Your task to perform on an android device: Search for corsair k70 on target, select the first entry, add it to the cart, then select checkout. Image 0: 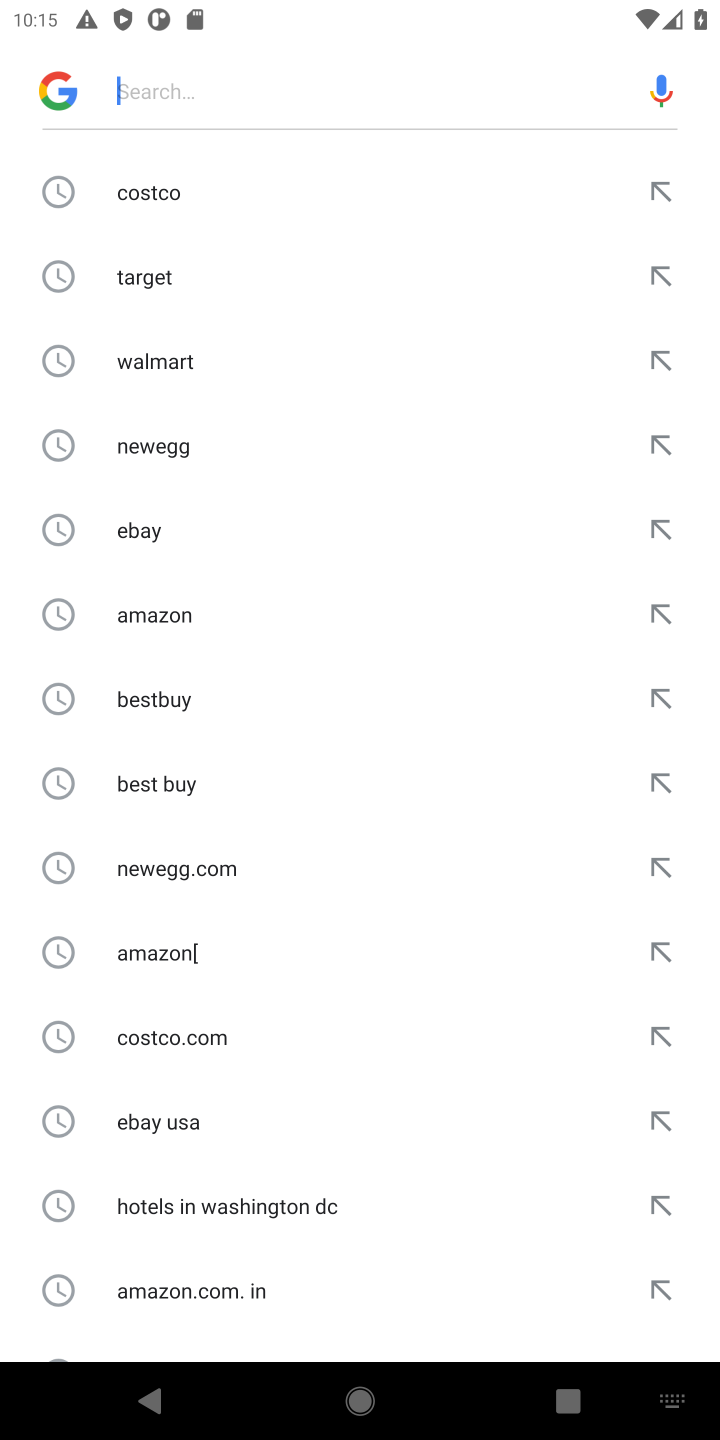
Step 0: press home button
Your task to perform on an android device: Search for corsair k70 on target, select the first entry, add it to the cart, then select checkout. Image 1: 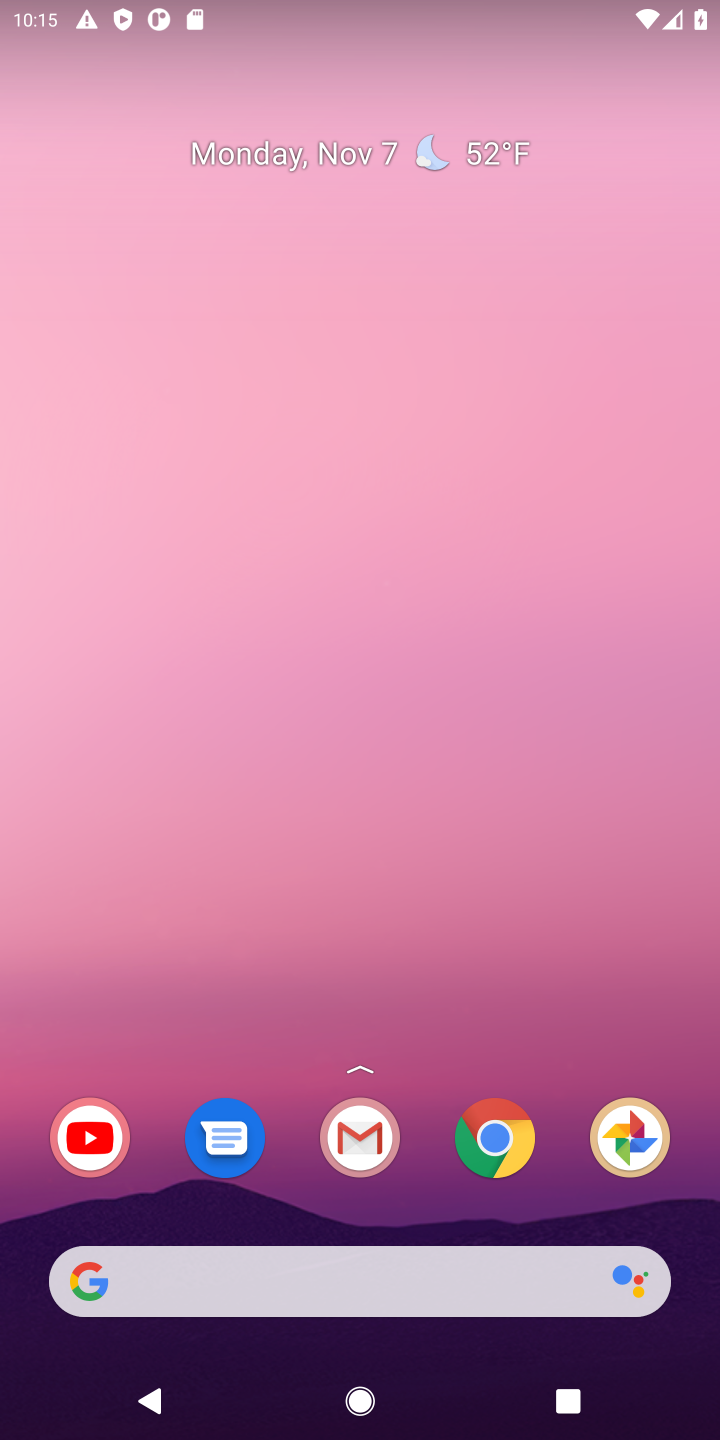
Step 1: click (512, 1140)
Your task to perform on an android device: Search for corsair k70 on target, select the first entry, add it to the cart, then select checkout. Image 2: 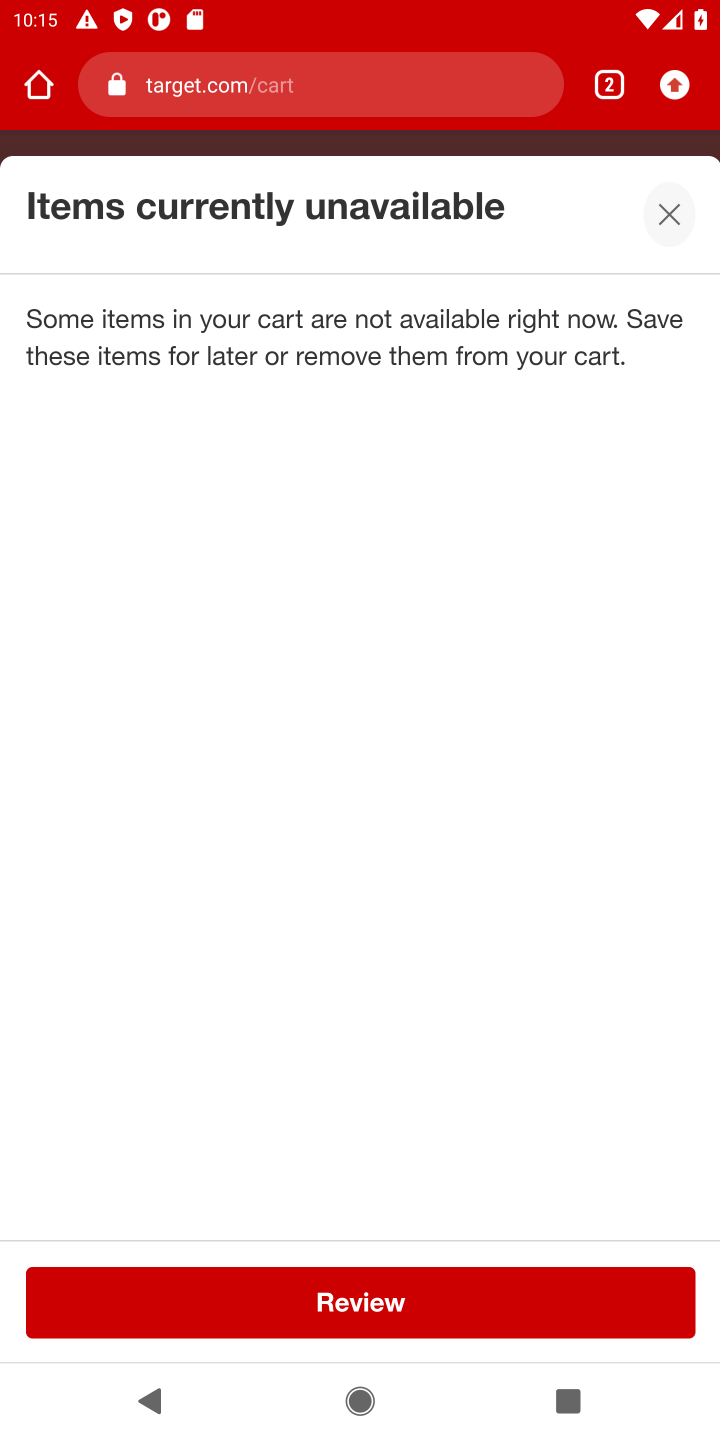
Step 2: click (226, 79)
Your task to perform on an android device: Search for corsair k70 on target, select the first entry, add it to the cart, then select checkout. Image 3: 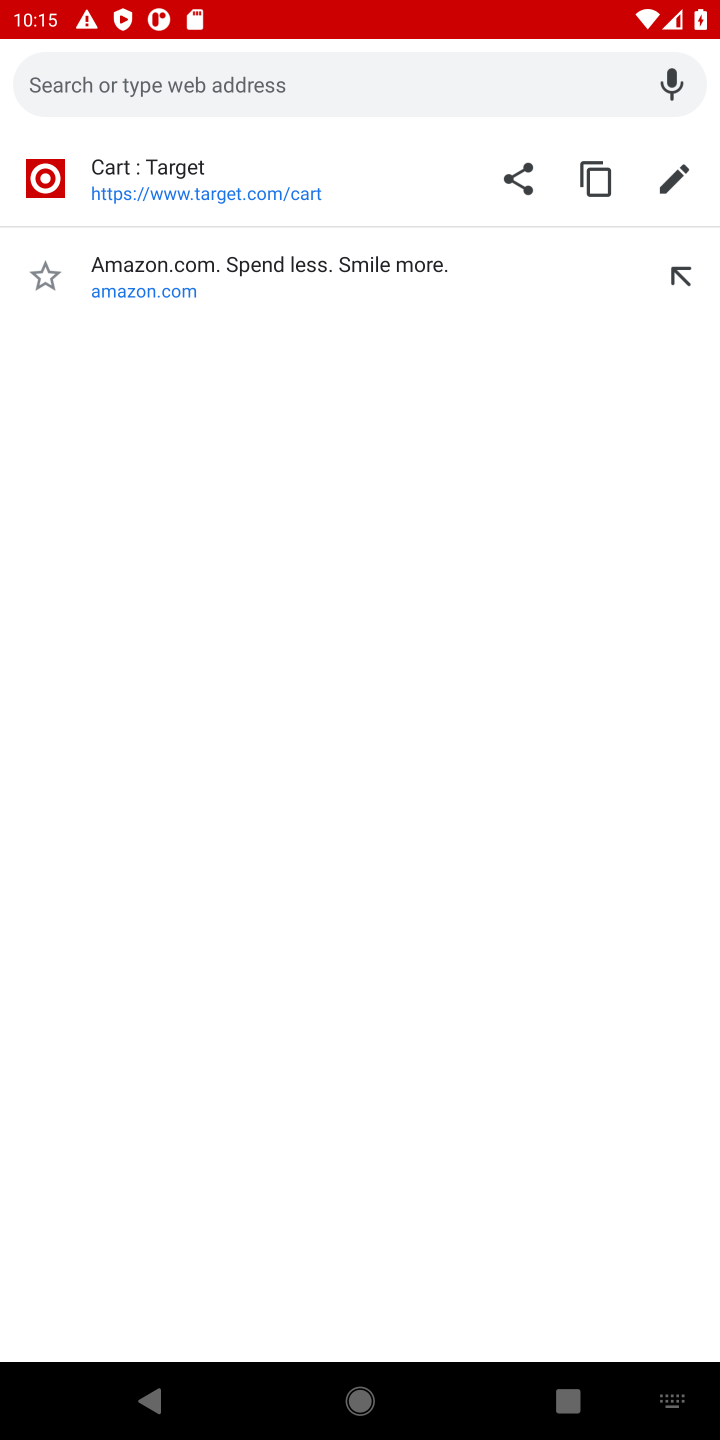
Step 3: type "target"
Your task to perform on an android device: Search for corsair k70 on target, select the first entry, add it to the cart, then select checkout. Image 4: 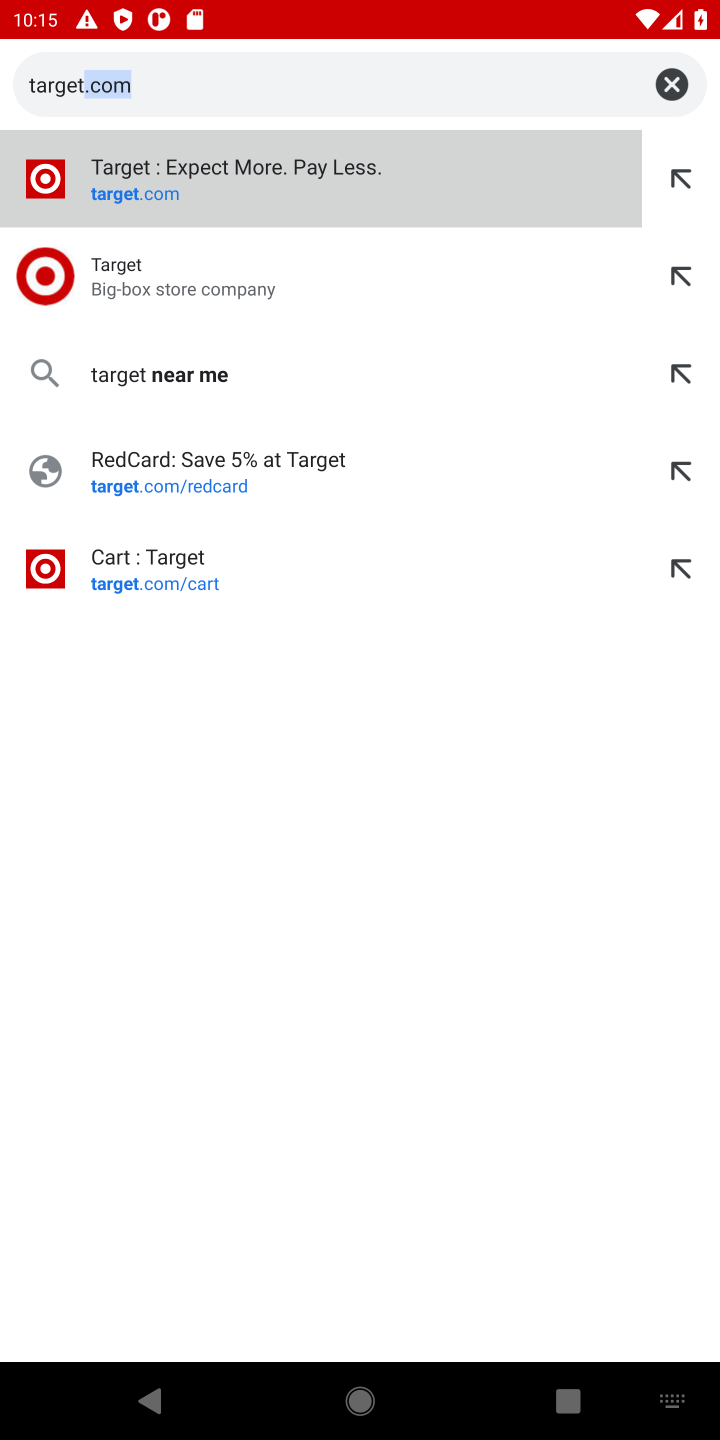
Step 4: click (92, 268)
Your task to perform on an android device: Search for corsair k70 on target, select the first entry, add it to the cart, then select checkout. Image 5: 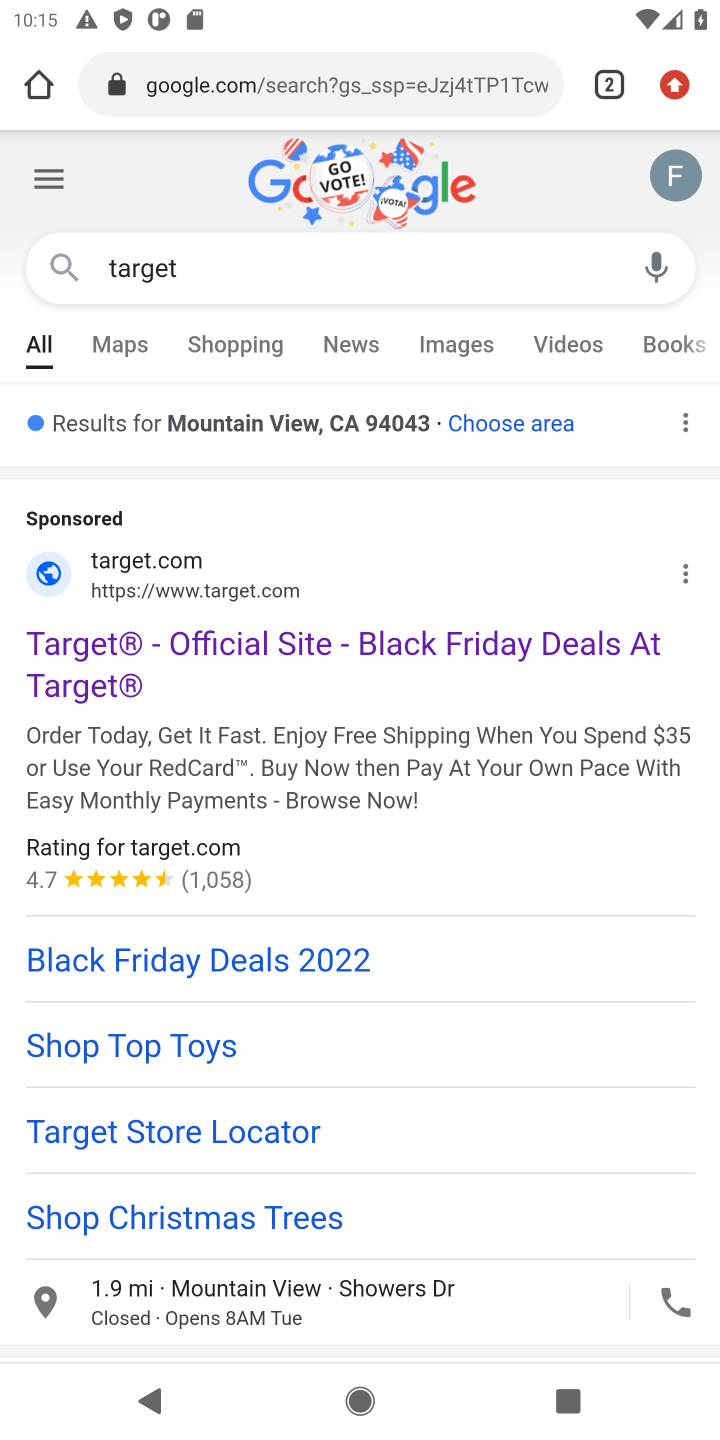
Step 5: drag from (391, 1060) to (316, 377)
Your task to perform on an android device: Search for corsair k70 on target, select the first entry, add it to the cart, then select checkout. Image 6: 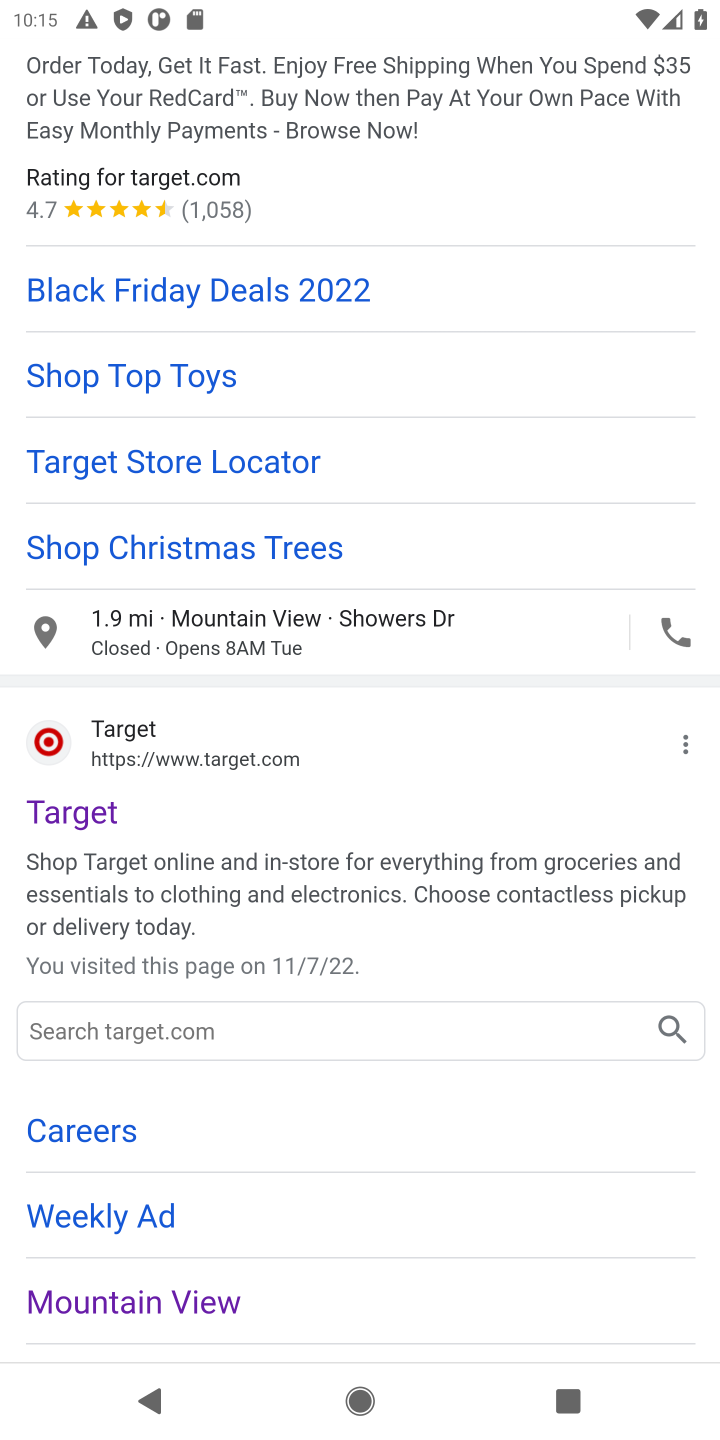
Step 6: click (129, 1306)
Your task to perform on an android device: Search for corsair k70 on target, select the first entry, add it to the cart, then select checkout. Image 7: 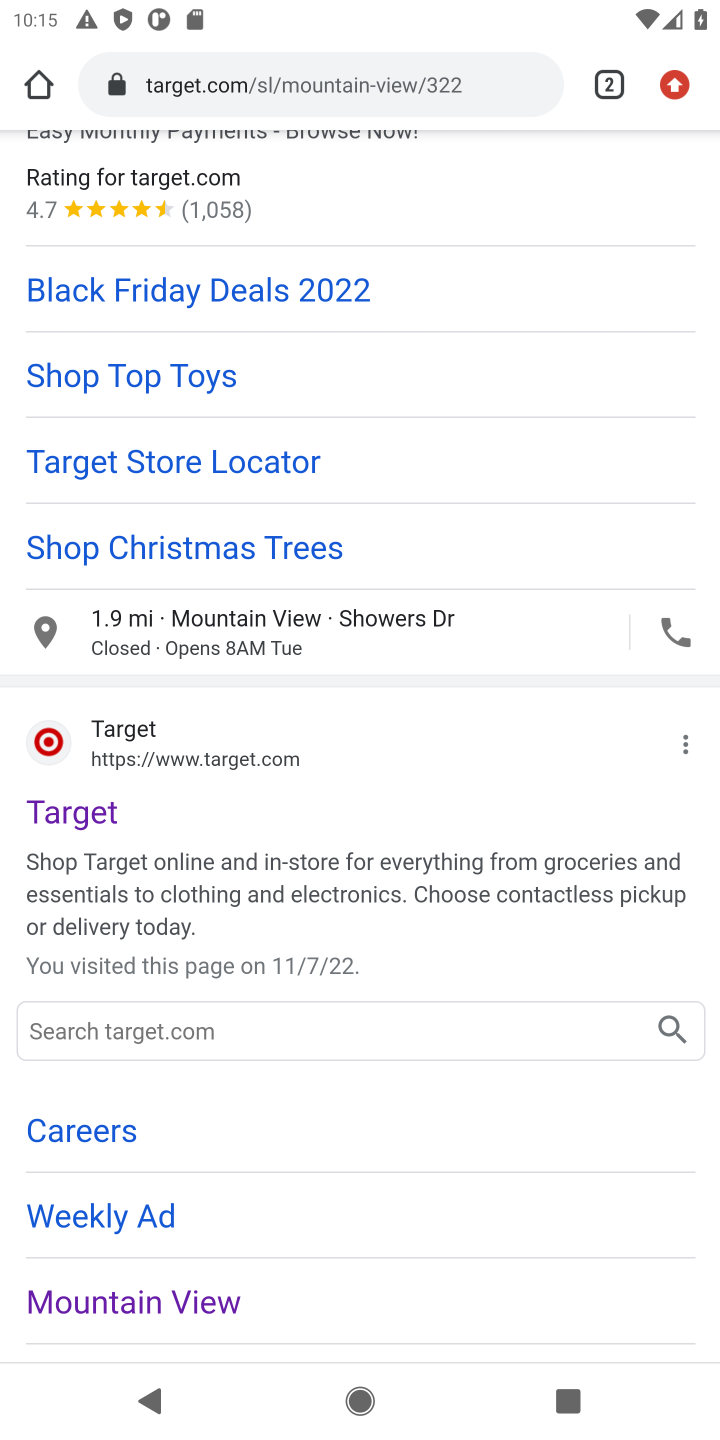
Step 7: click (96, 811)
Your task to perform on an android device: Search for corsair k70 on target, select the first entry, add it to the cart, then select checkout. Image 8: 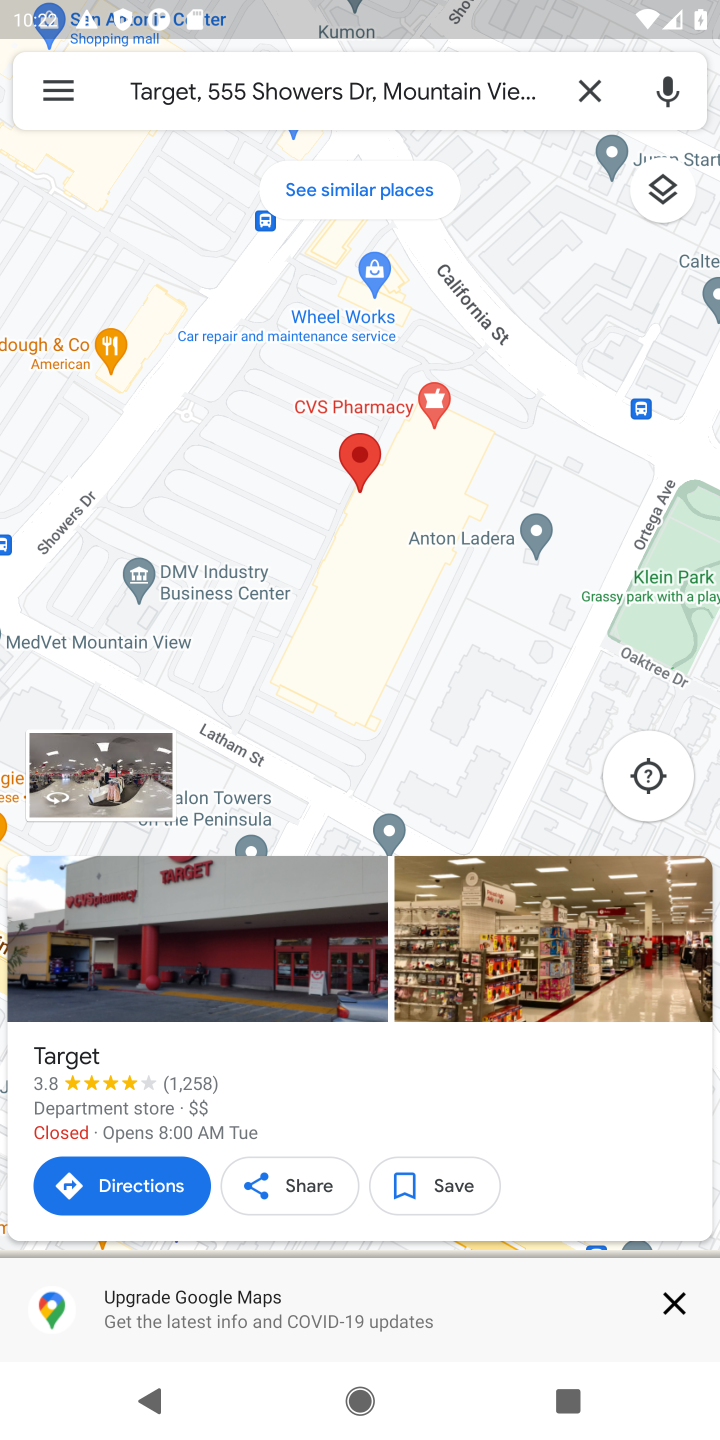
Step 8: task complete